Your task to perform on an android device: Open calendar and show me the third week of next month Image 0: 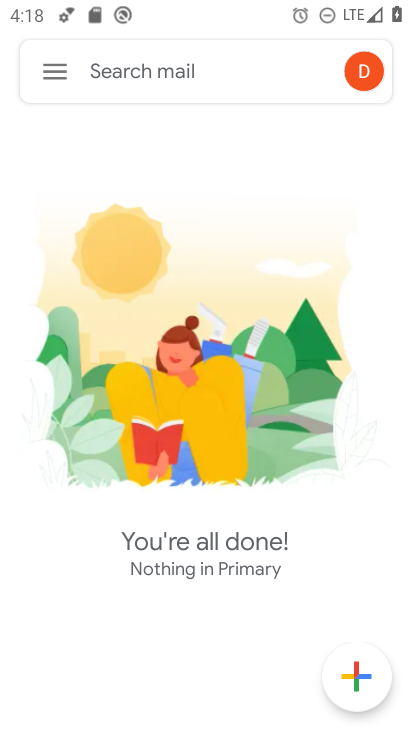
Step 0: press home button
Your task to perform on an android device: Open calendar and show me the third week of next month Image 1: 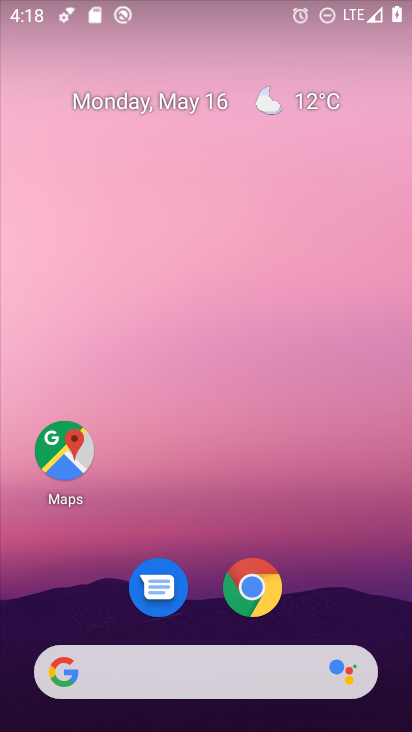
Step 1: drag from (379, 579) to (349, 235)
Your task to perform on an android device: Open calendar and show me the third week of next month Image 2: 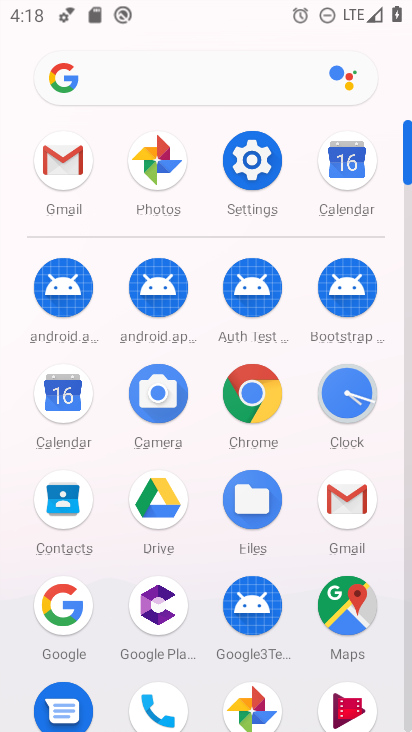
Step 2: click (68, 391)
Your task to perform on an android device: Open calendar and show me the third week of next month Image 3: 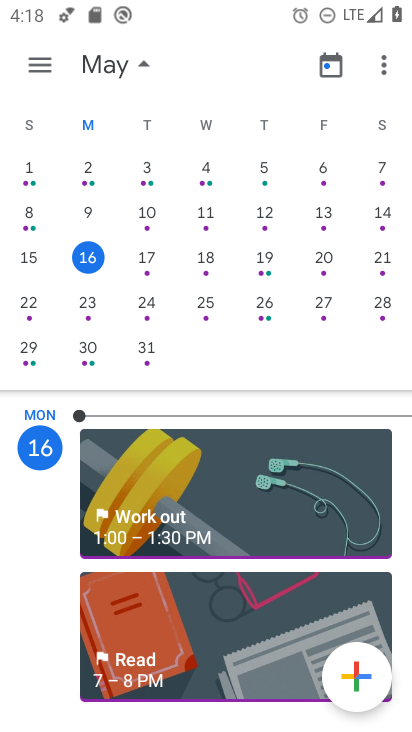
Step 3: drag from (407, 209) to (2, 207)
Your task to perform on an android device: Open calendar and show me the third week of next month Image 4: 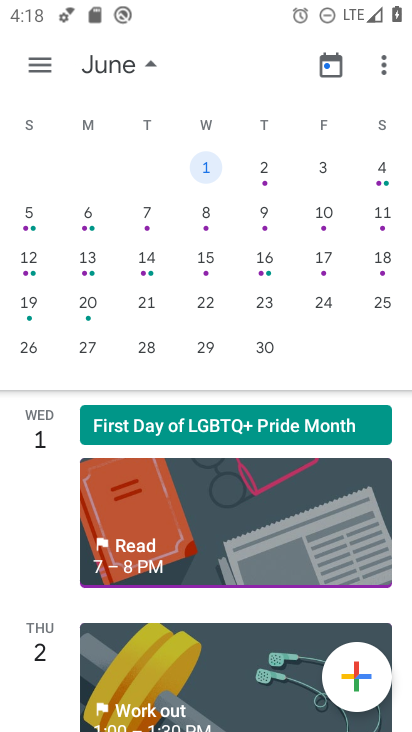
Step 4: click (261, 258)
Your task to perform on an android device: Open calendar and show me the third week of next month Image 5: 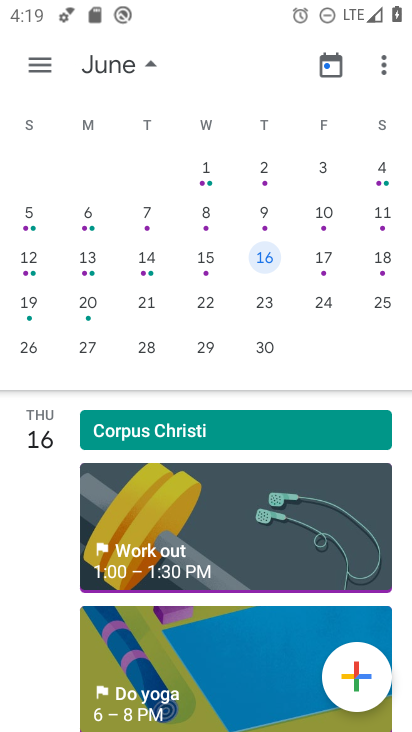
Step 5: task complete